Your task to perform on an android device: turn off airplane mode Image 0: 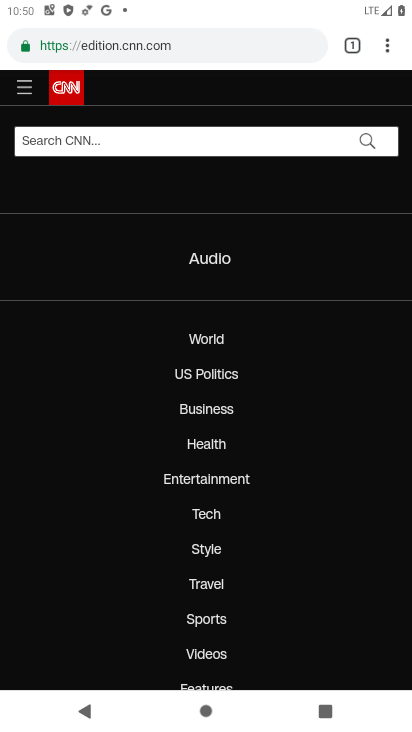
Step 0: press home button
Your task to perform on an android device: turn off airplane mode Image 1: 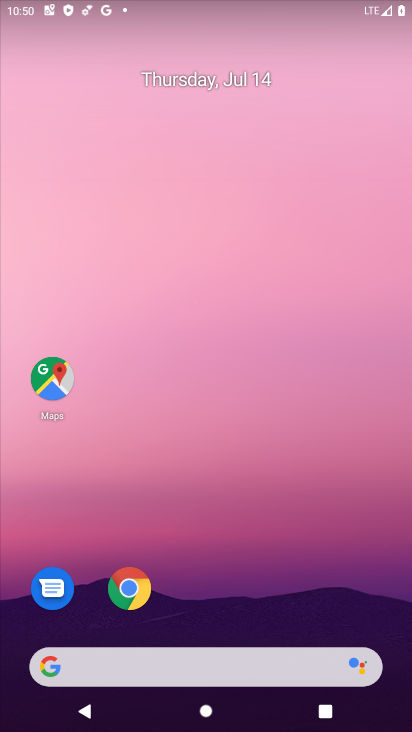
Step 1: drag from (182, 666) to (332, 66)
Your task to perform on an android device: turn off airplane mode Image 2: 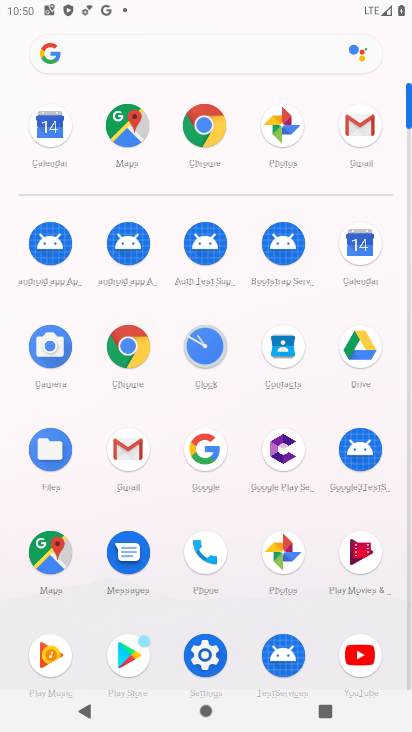
Step 2: click (206, 652)
Your task to perform on an android device: turn off airplane mode Image 3: 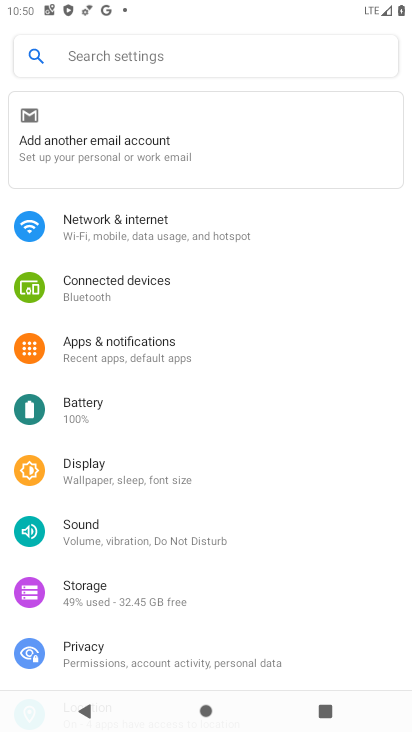
Step 3: click (157, 233)
Your task to perform on an android device: turn off airplane mode Image 4: 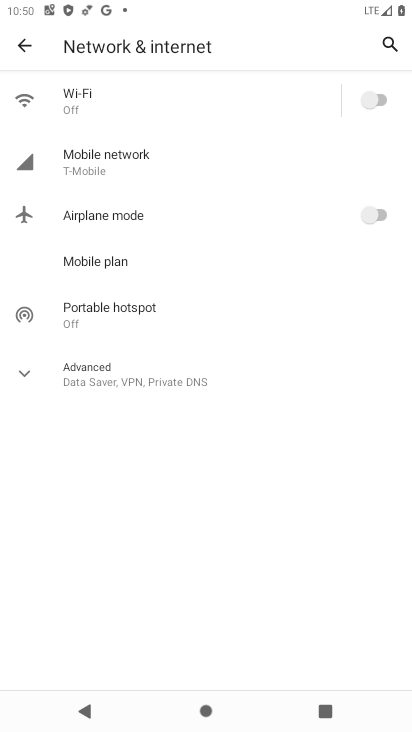
Step 4: task complete